Your task to perform on an android device: turn on translation in the chrome app Image 0: 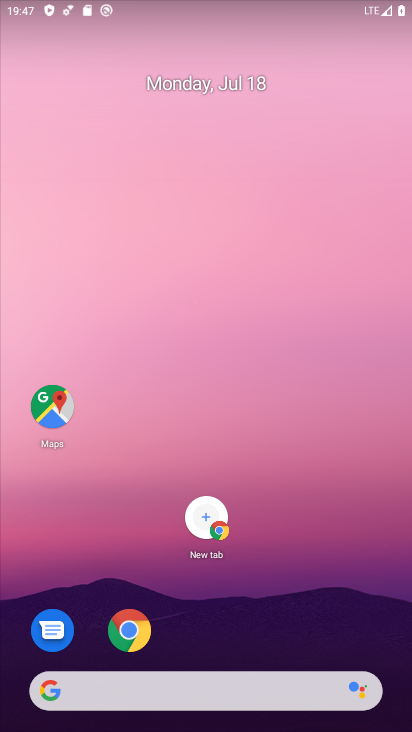
Step 0: click (128, 627)
Your task to perform on an android device: turn on translation in the chrome app Image 1: 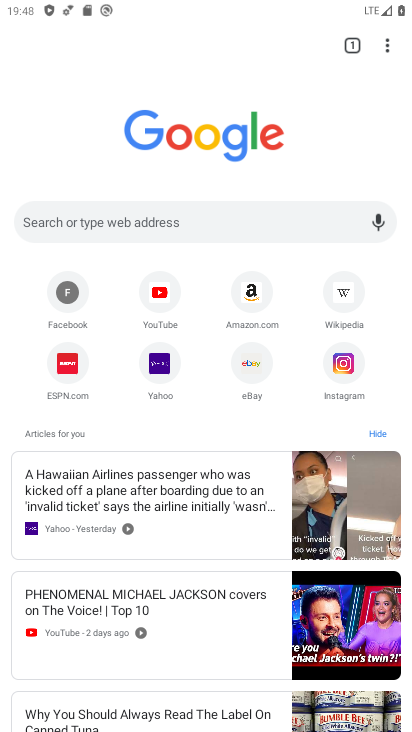
Step 1: click (383, 48)
Your task to perform on an android device: turn on translation in the chrome app Image 2: 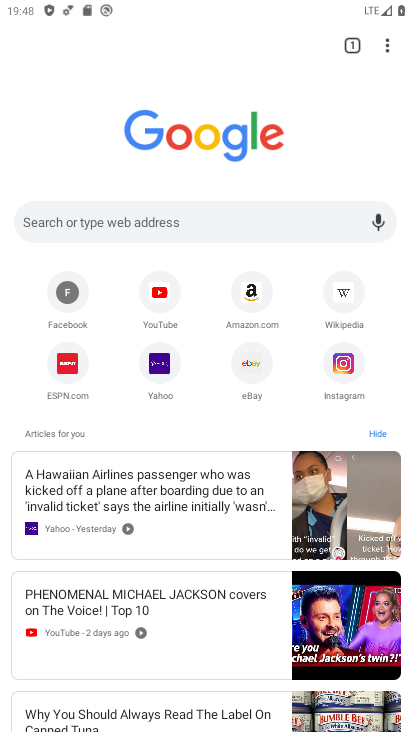
Step 2: click (386, 40)
Your task to perform on an android device: turn on translation in the chrome app Image 3: 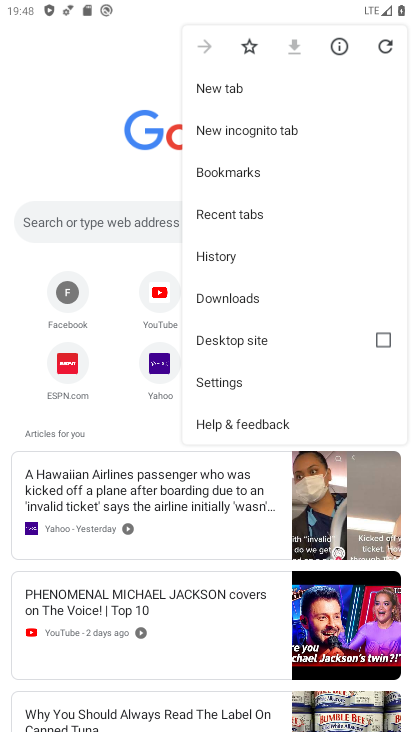
Step 3: click (240, 386)
Your task to perform on an android device: turn on translation in the chrome app Image 4: 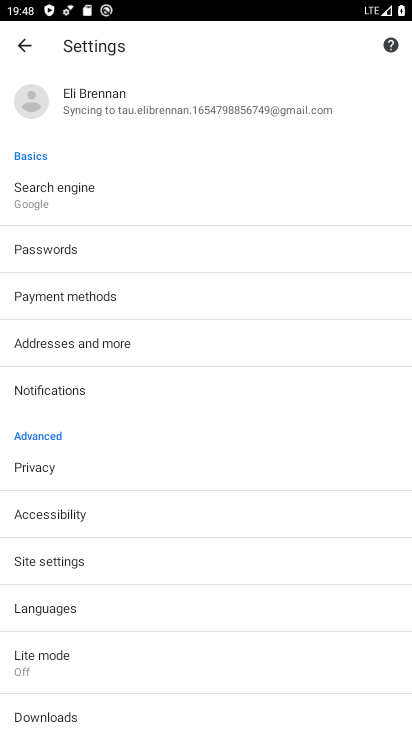
Step 4: click (32, 604)
Your task to perform on an android device: turn on translation in the chrome app Image 5: 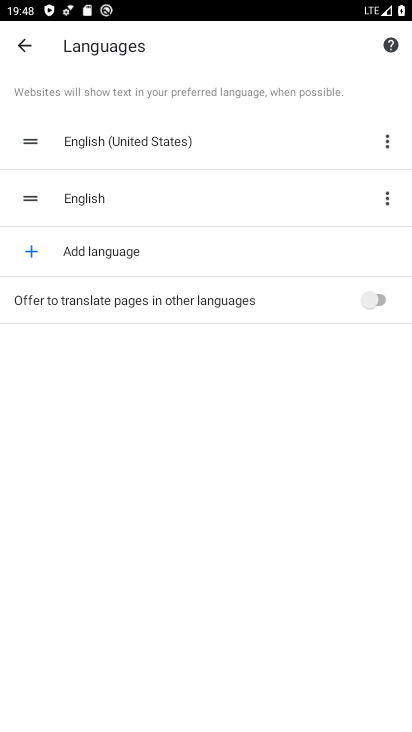
Step 5: click (381, 294)
Your task to perform on an android device: turn on translation in the chrome app Image 6: 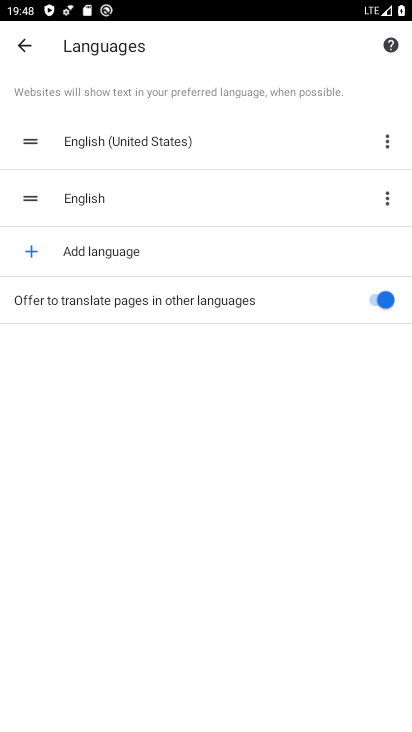
Step 6: task complete